Your task to perform on an android device: Set the phone to "Do not disturb". Image 0: 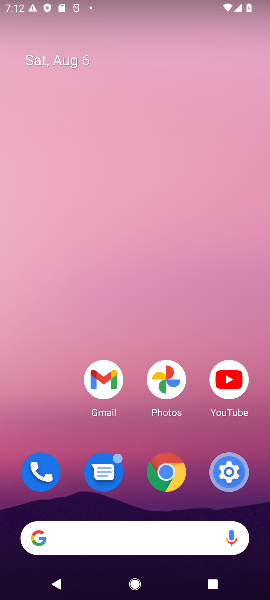
Step 0: click (230, 470)
Your task to perform on an android device: Set the phone to "Do not disturb". Image 1: 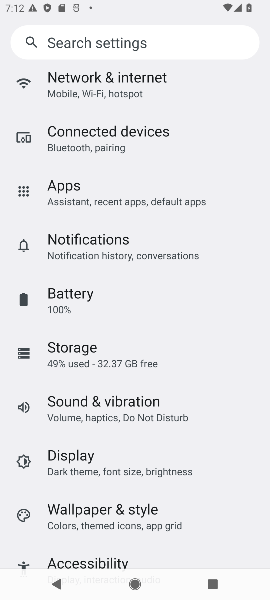
Step 1: drag from (223, 493) to (194, 226)
Your task to perform on an android device: Set the phone to "Do not disturb". Image 2: 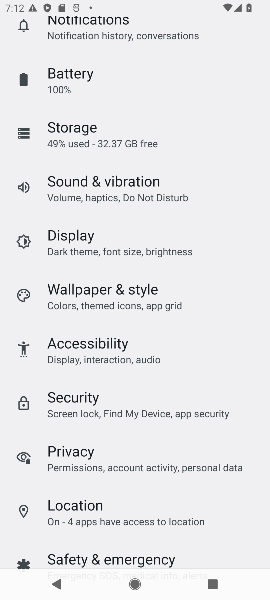
Step 2: click (86, 180)
Your task to perform on an android device: Set the phone to "Do not disturb". Image 3: 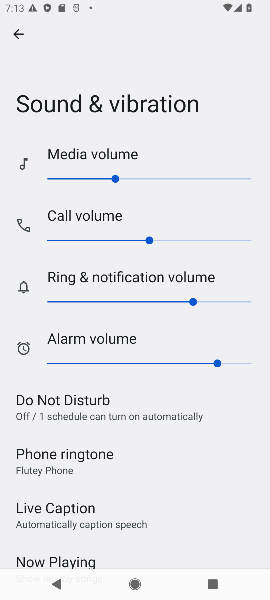
Step 3: click (49, 396)
Your task to perform on an android device: Set the phone to "Do not disturb". Image 4: 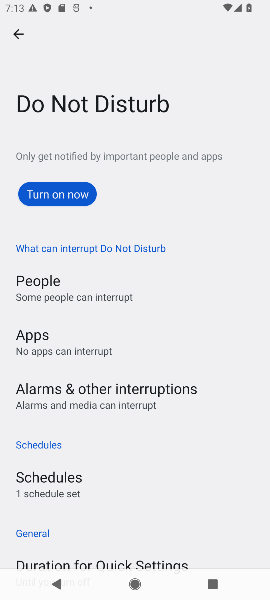
Step 4: drag from (170, 471) to (163, 173)
Your task to perform on an android device: Set the phone to "Do not disturb". Image 5: 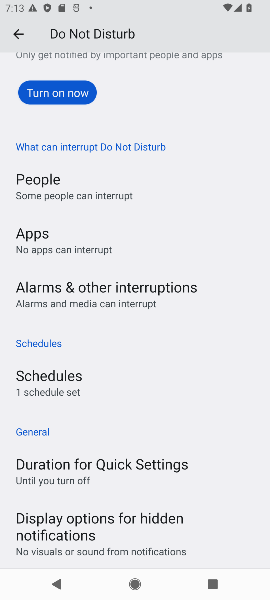
Step 5: drag from (168, 452) to (200, 85)
Your task to perform on an android device: Set the phone to "Do not disturb". Image 6: 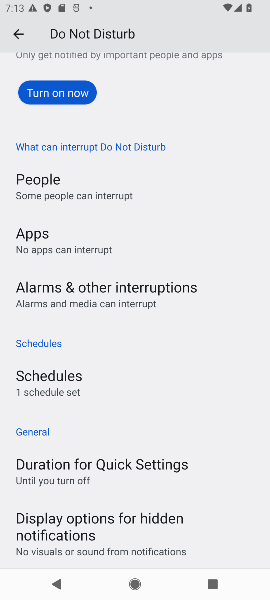
Step 6: drag from (219, 256) to (216, 386)
Your task to perform on an android device: Set the phone to "Do not disturb". Image 7: 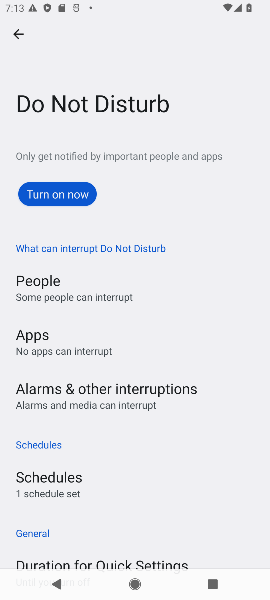
Step 7: click (55, 197)
Your task to perform on an android device: Set the phone to "Do not disturb". Image 8: 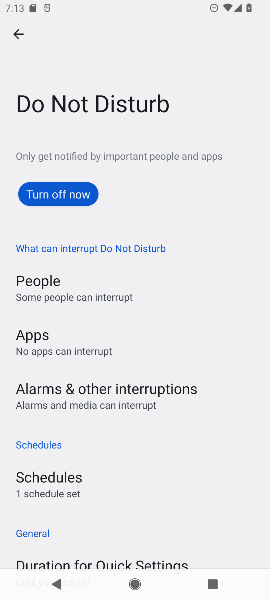
Step 8: task complete